Your task to perform on an android device: open a bookmark in the chrome app Image 0: 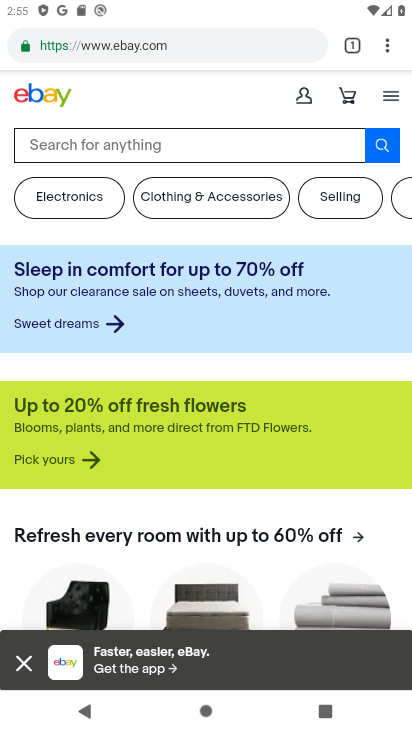
Step 0: click (391, 48)
Your task to perform on an android device: open a bookmark in the chrome app Image 1: 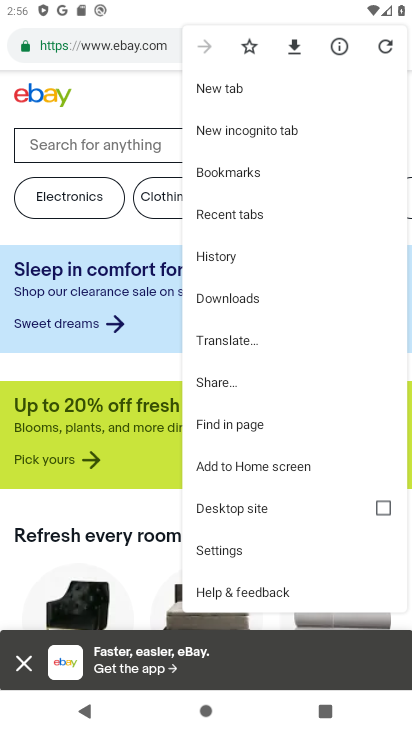
Step 1: click (272, 184)
Your task to perform on an android device: open a bookmark in the chrome app Image 2: 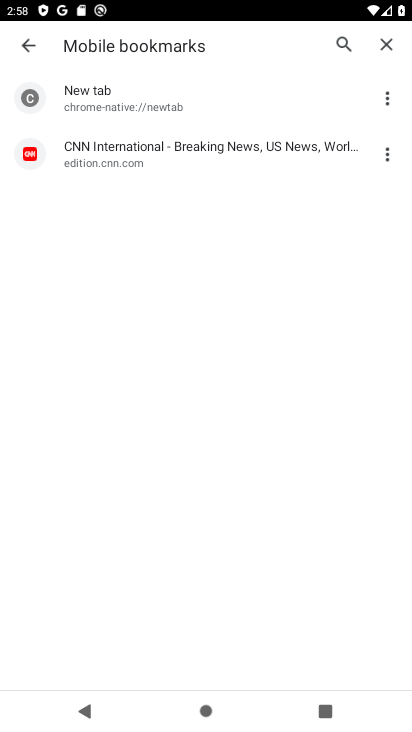
Step 2: click (259, 165)
Your task to perform on an android device: open a bookmark in the chrome app Image 3: 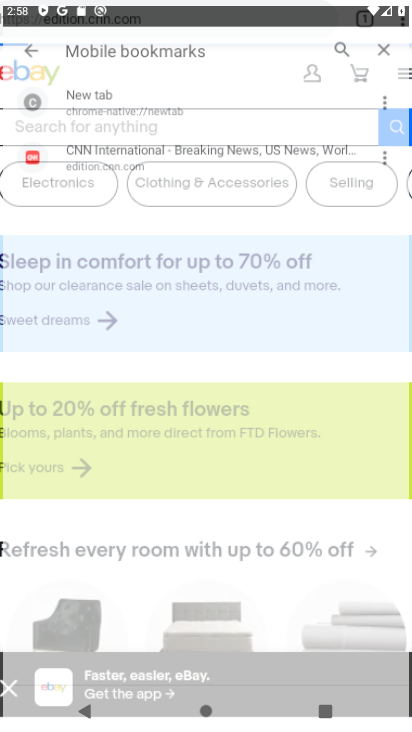
Step 3: task complete